Your task to perform on an android device: delete browsing data in the chrome app Image 0: 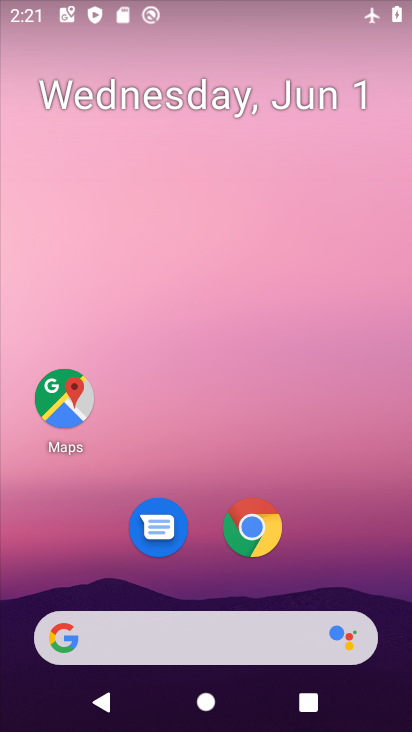
Step 0: click (254, 530)
Your task to perform on an android device: delete browsing data in the chrome app Image 1: 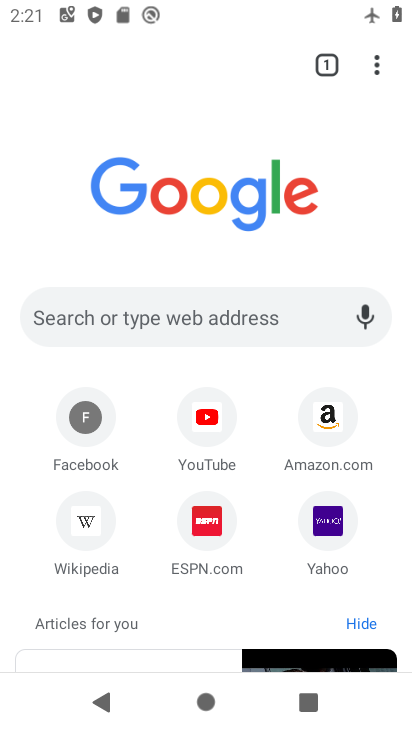
Step 1: click (379, 67)
Your task to perform on an android device: delete browsing data in the chrome app Image 2: 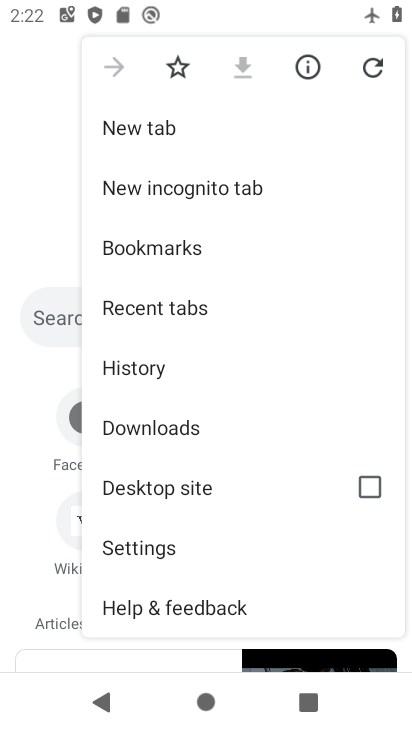
Step 2: click (159, 548)
Your task to perform on an android device: delete browsing data in the chrome app Image 3: 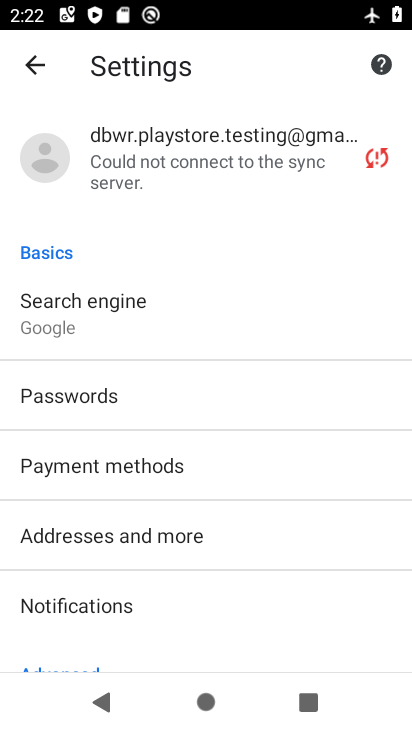
Step 3: drag from (167, 398) to (155, 263)
Your task to perform on an android device: delete browsing data in the chrome app Image 4: 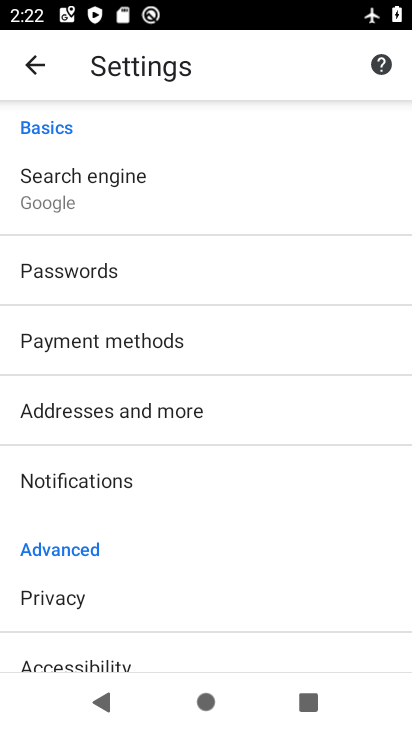
Step 4: drag from (160, 519) to (165, 386)
Your task to perform on an android device: delete browsing data in the chrome app Image 5: 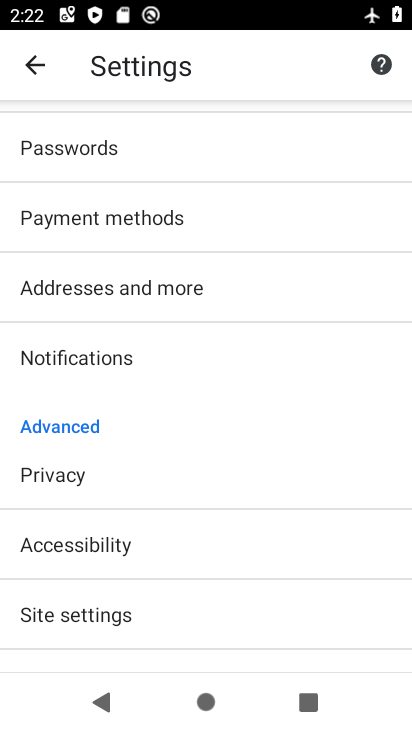
Step 5: click (75, 472)
Your task to perform on an android device: delete browsing data in the chrome app Image 6: 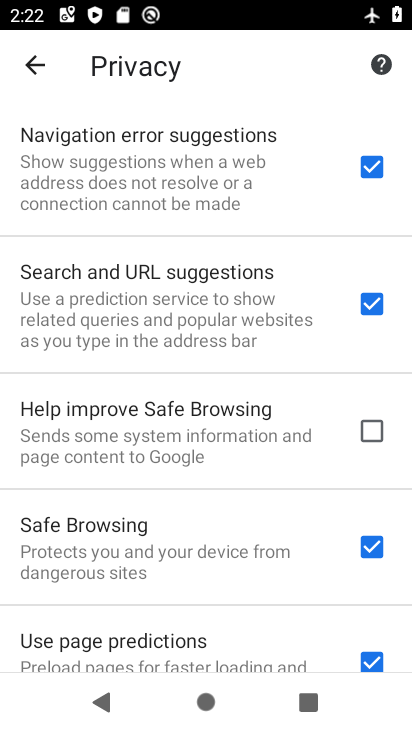
Step 6: drag from (166, 579) to (217, 461)
Your task to perform on an android device: delete browsing data in the chrome app Image 7: 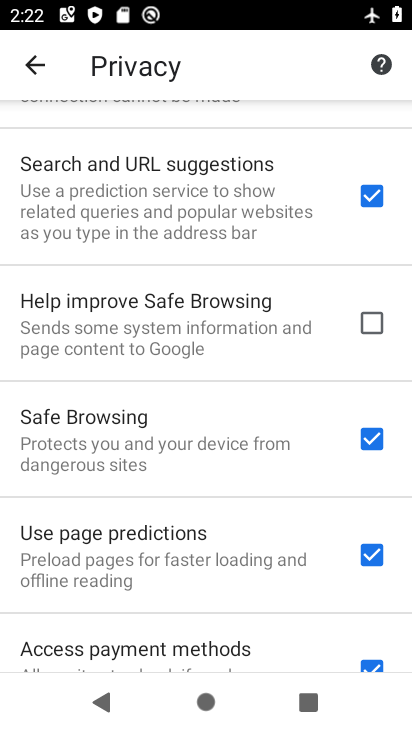
Step 7: drag from (158, 505) to (161, 433)
Your task to perform on an android device: delete browsing data in the chrome app Image 8: 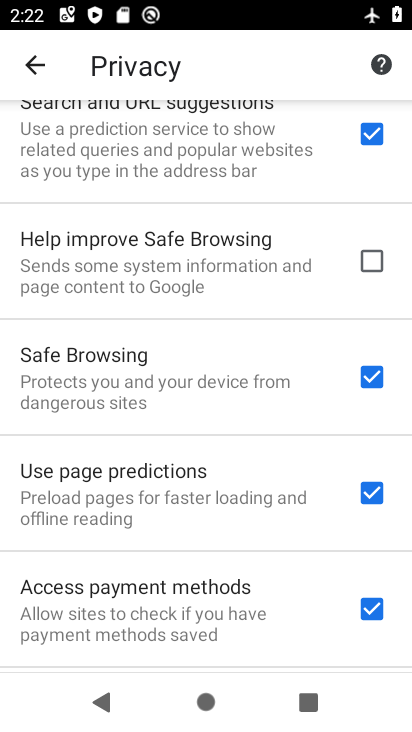
Step 8: drag from (160, 523) to (170, 398)
Your task to perform on an android device: delete browsing data in the chrome app Image 9: 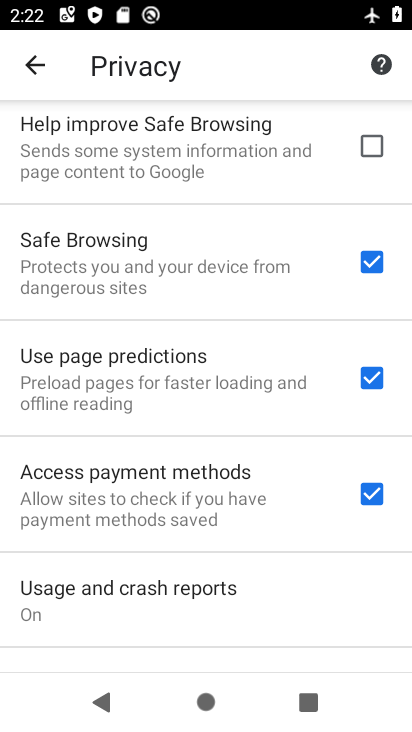
Step 9: drag from (102, 561) to (118, 467)
Your task to perform on an android device: delete browsing data in the chrome app Image 10: 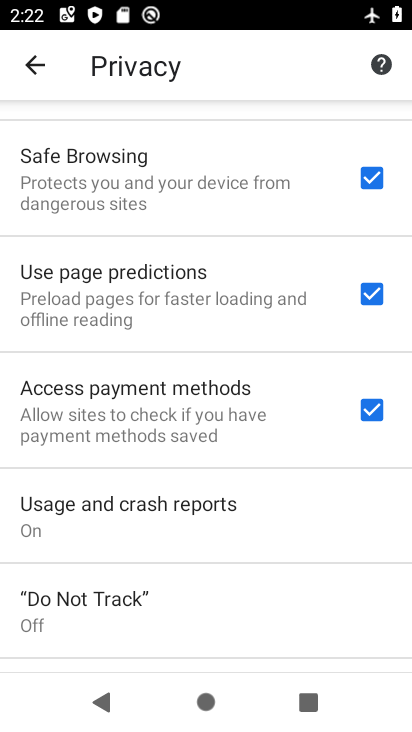
Step 10: drag from (126, 542) to (135, 466)
Your task to perform on an android device: delete browsing data in the chrome app Image 11: 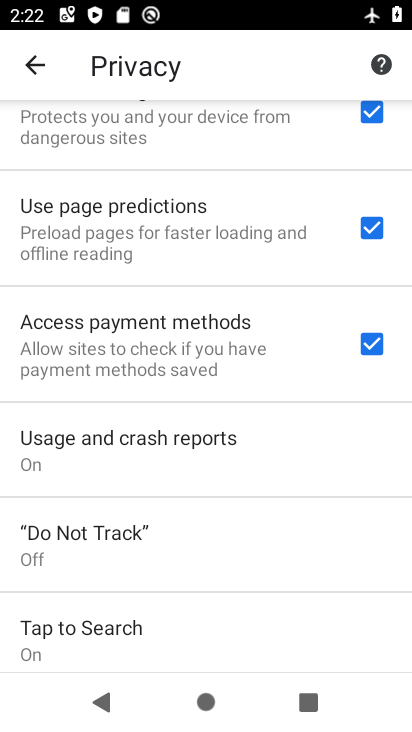
Step 11: drag from (87, 566) to (92, 466)
Your task to perform on an android device: delete browsing data in the chrome app Image 12: 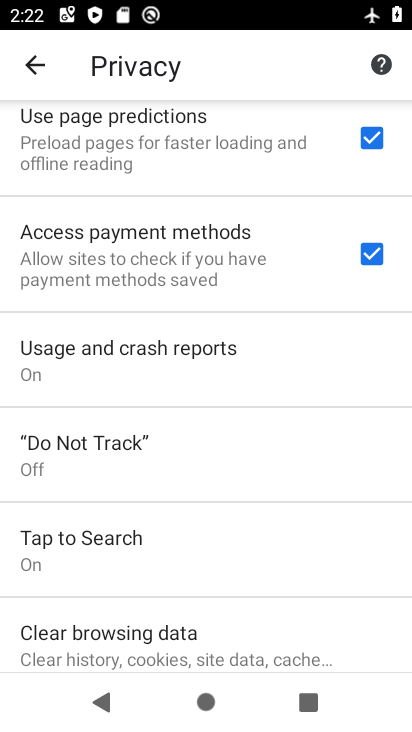
Step 12: drag from (83, 581) to (120, 460)
Your task to perform on an android device: delete browsing data in the chrome app Image 13: 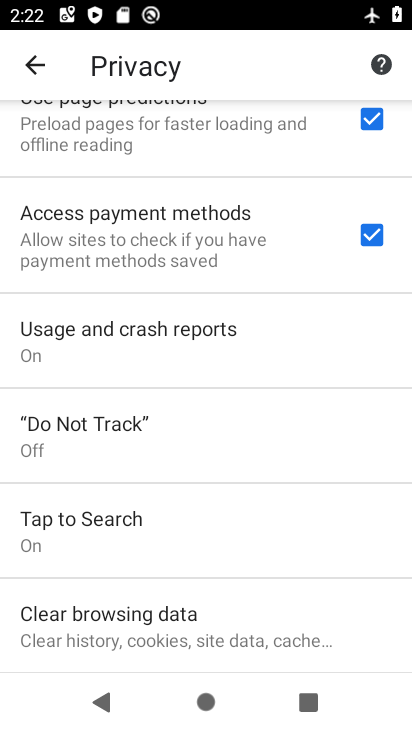
Step 13: click (114, 610)
Your task to perform on an android device: delete browsing data in the chrome app Image 14: 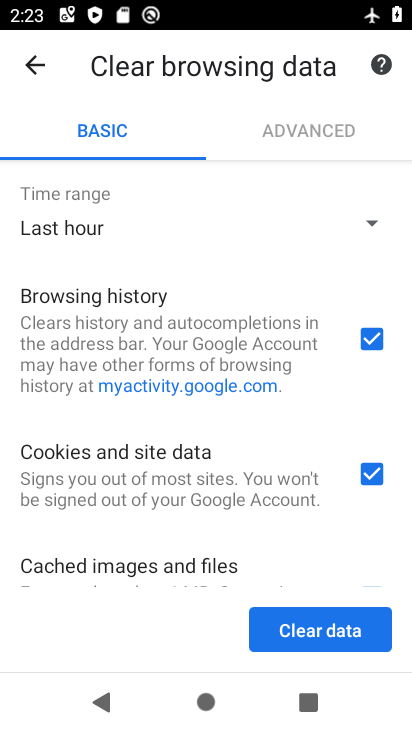
Step 14: click (326, 618)
Your task to perform on an android device: delete browsing data in the chrome app Image 15: 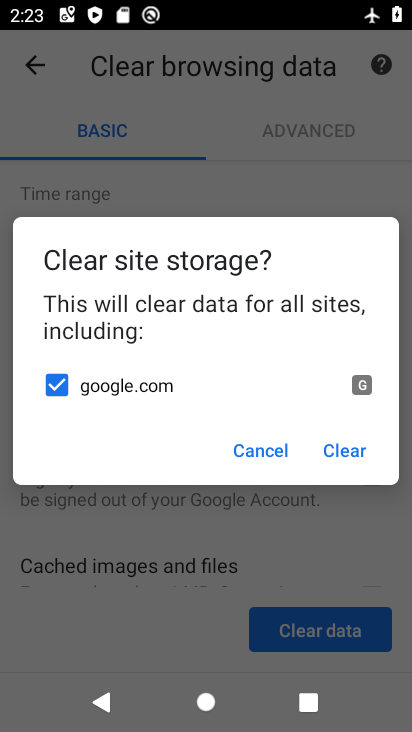
Step 15: click (359, 448)
Your task to perform on an android device: delete browsing data in the chrome app Image 16: 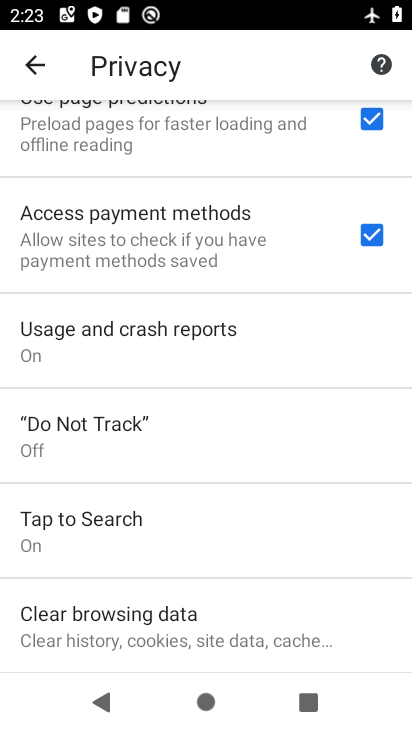
Step 16: task complete